Your task to perform on an android device: Go to accessibility settings Image 0: 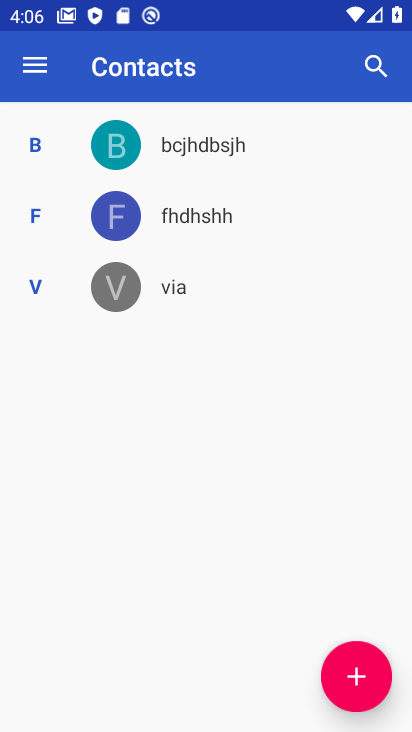
Step 0: press home button
Your task to perform on an android device: Go to accessibility settings Image 1: 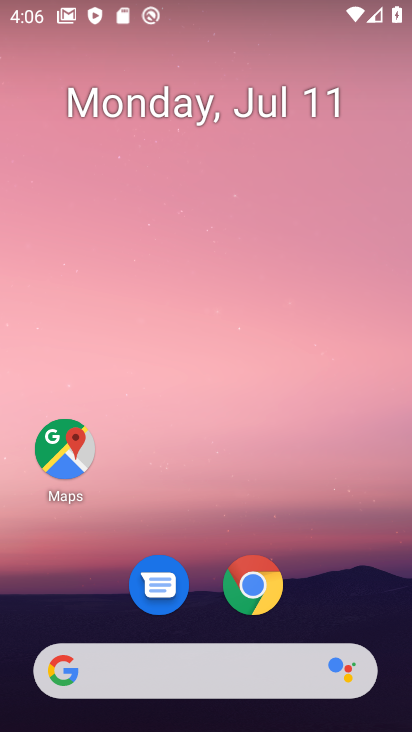
Step 1: drag from (226, 498) to (215, 14)
Your task to perform on an android device: Go to accessibility settings Image 2: 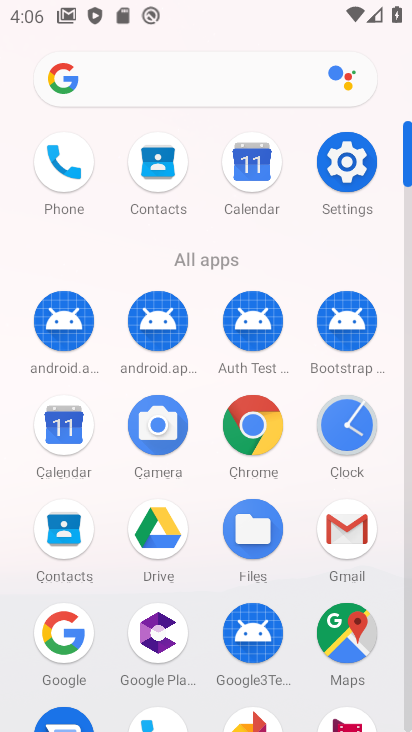
Step 2: click (333, 164)
Your task to perform on an android device: Go to accessibility settings Image 3: 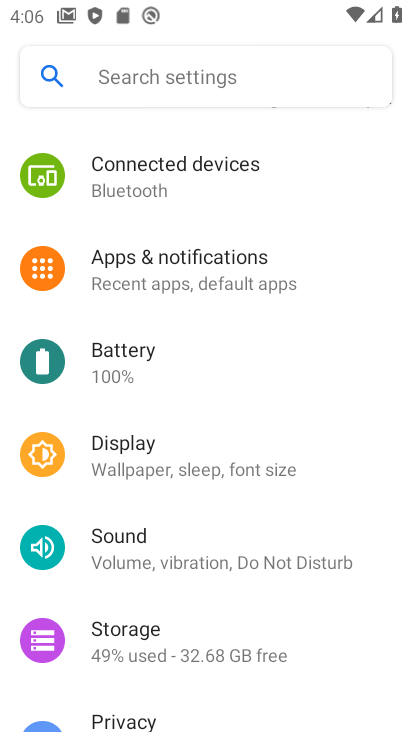
Step 3: drag from (205, 619) to (241, 37)
Your task to perform on an android device: Go to accessibility settings Image 4: 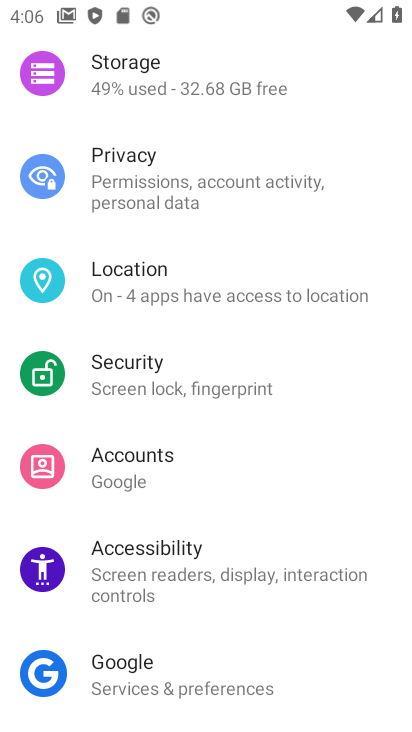
Step 4: click (239, 556)
Your task to perform on an android device: Go to accessibility settings Image 5: 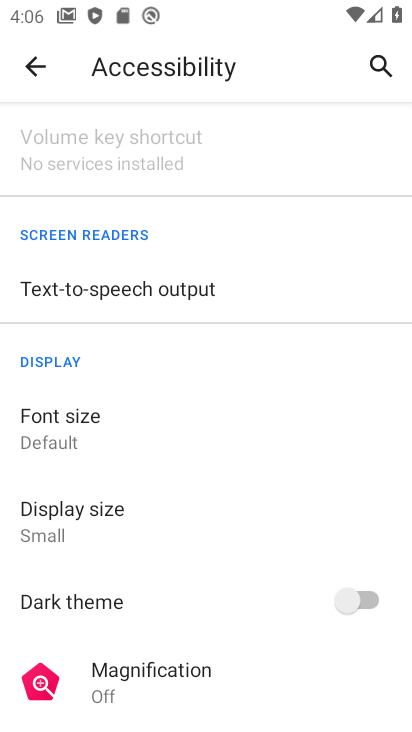
Step 5: task complete